Your task to perform on an android device: Look up the book "The Girl on the Train". Image 0: 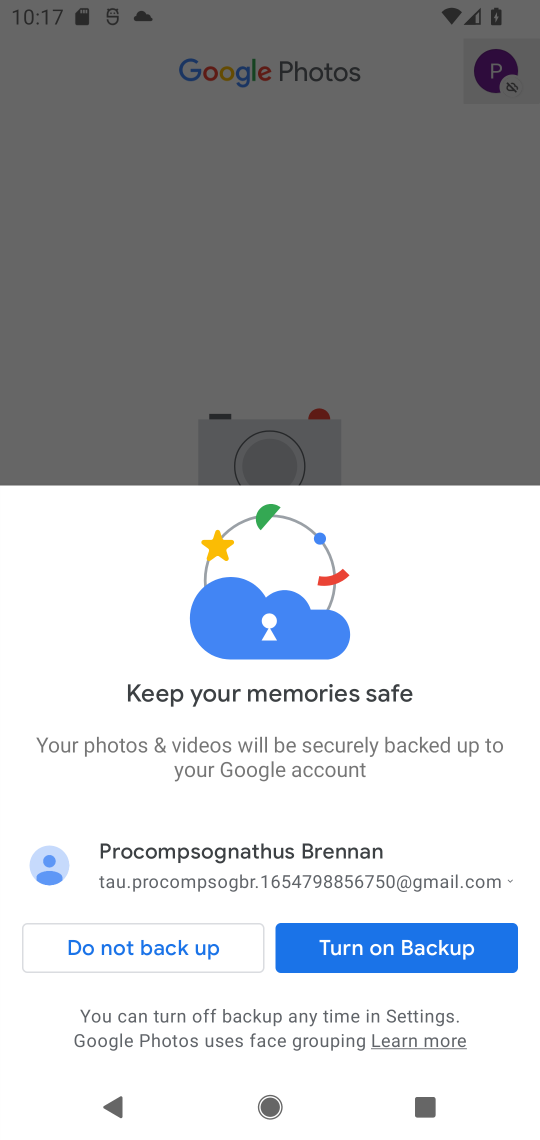
Step 0: press home button
Your task to perform on an android device: Look up the book "The Girl on the Train". Image 1: 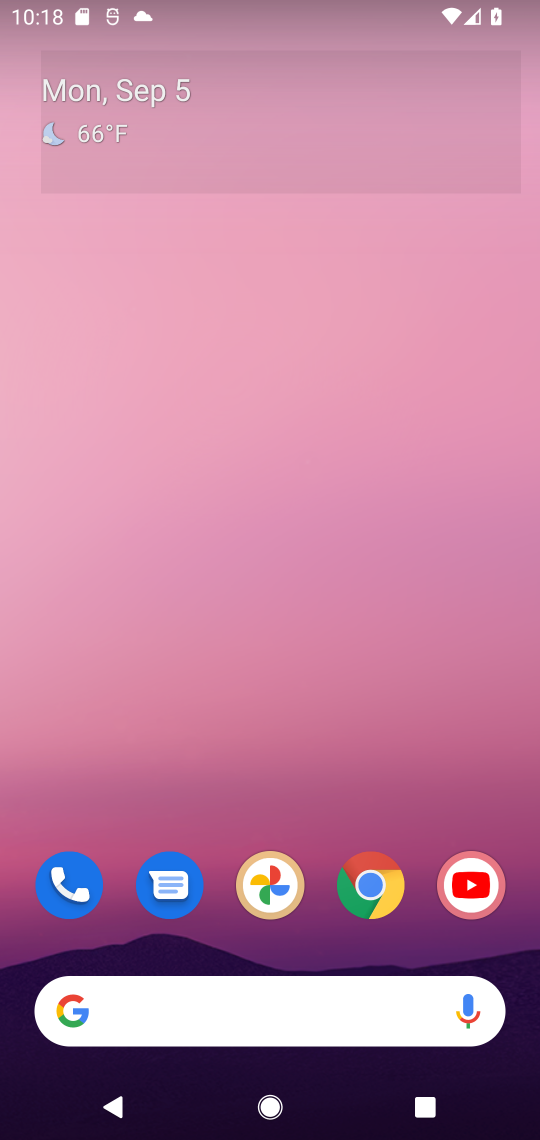
Step 1: click (371, 893)
Your task to perform on an android device: Look up the book "The Girl on the Train". Image 2: 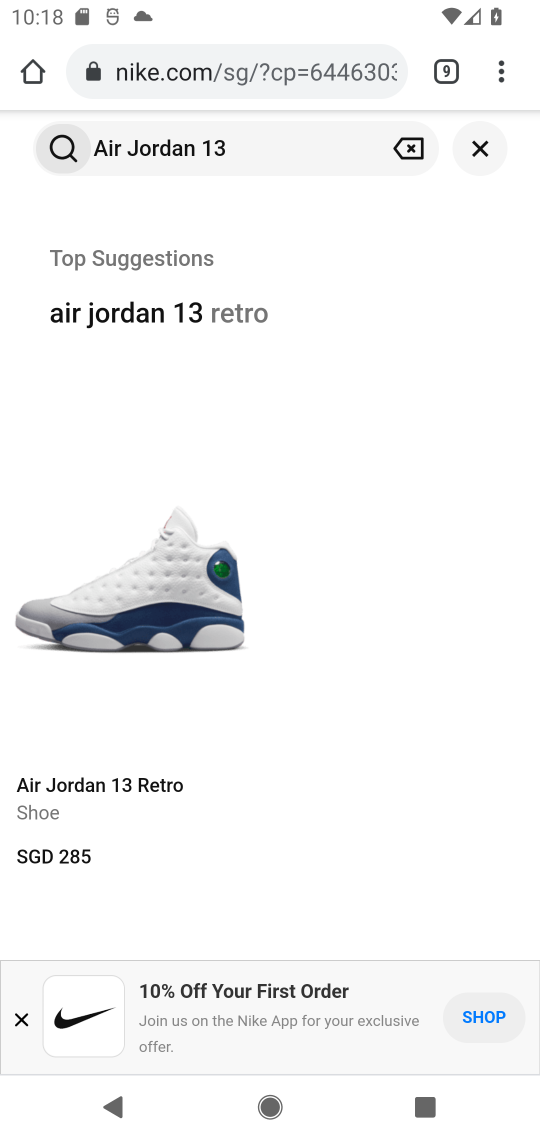
Step 2: drag from (501, 80) to (261, 252)
Your task to perform on an android device: Look up the book "The Girl on the Train". Image 3: 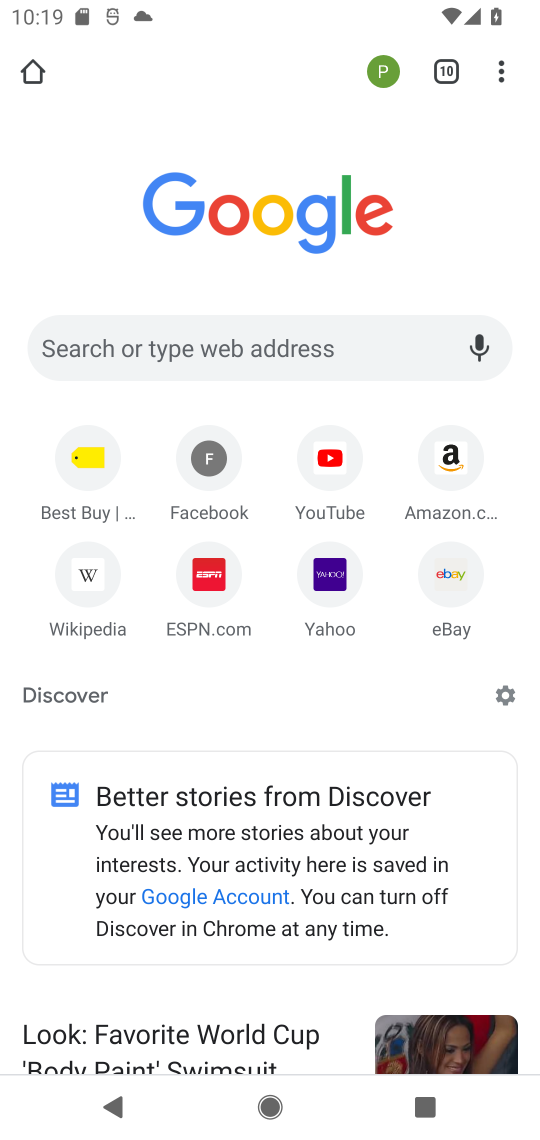
Step 3: click (260, 345)
Your task to perform on an android device: Look up the book "The Girl on the Train". Image 4: 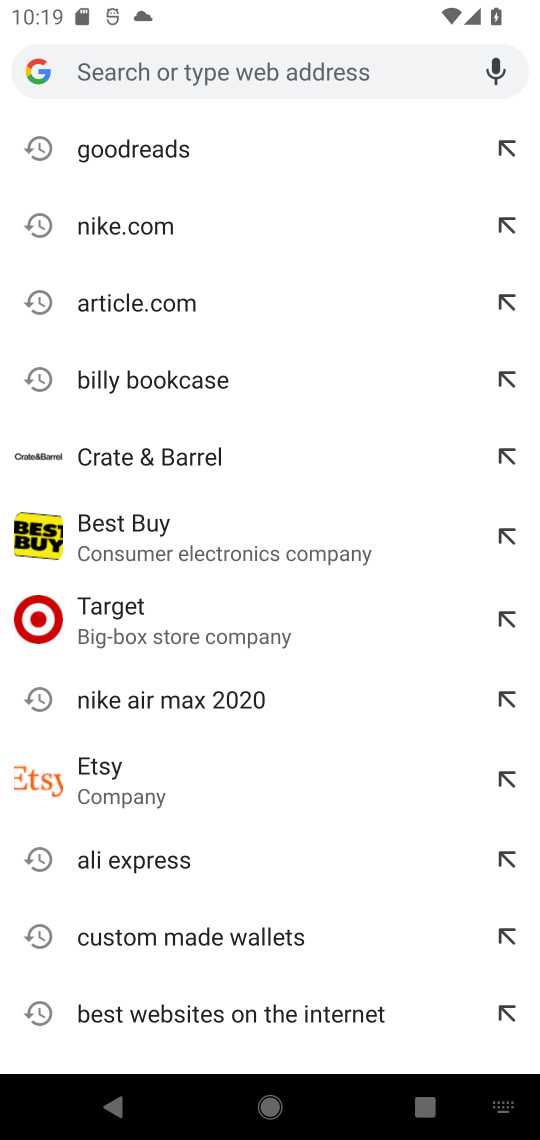
Step 4: type "The Girl on the Train"
Your task to perform on an android device: Look up the book "The Girl on the Train". Image 5: 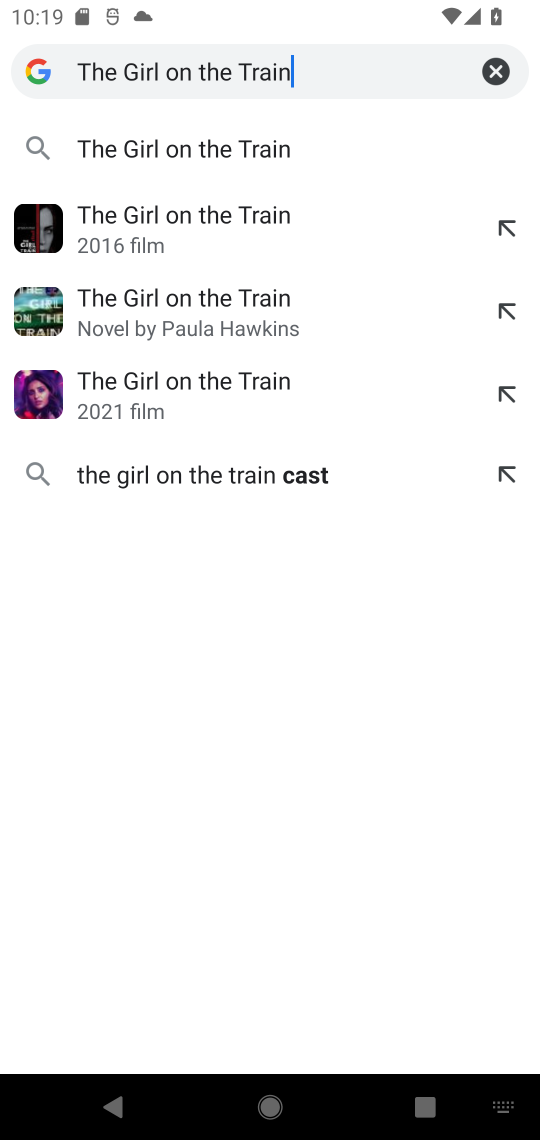
Step 5: click (196, 146)
Your task to perform on an android device: Look up the book "The Girl on the Train". Image 6: 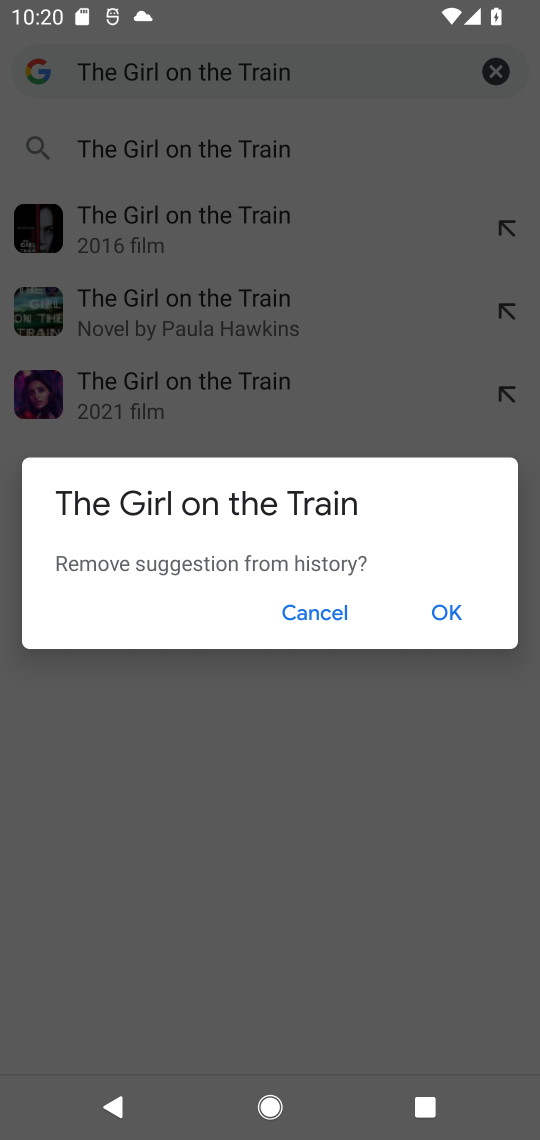
Step 6: click (327, 616)
Your task to perform on an android device: Look up the book "The Girl on the Train". Image 7: 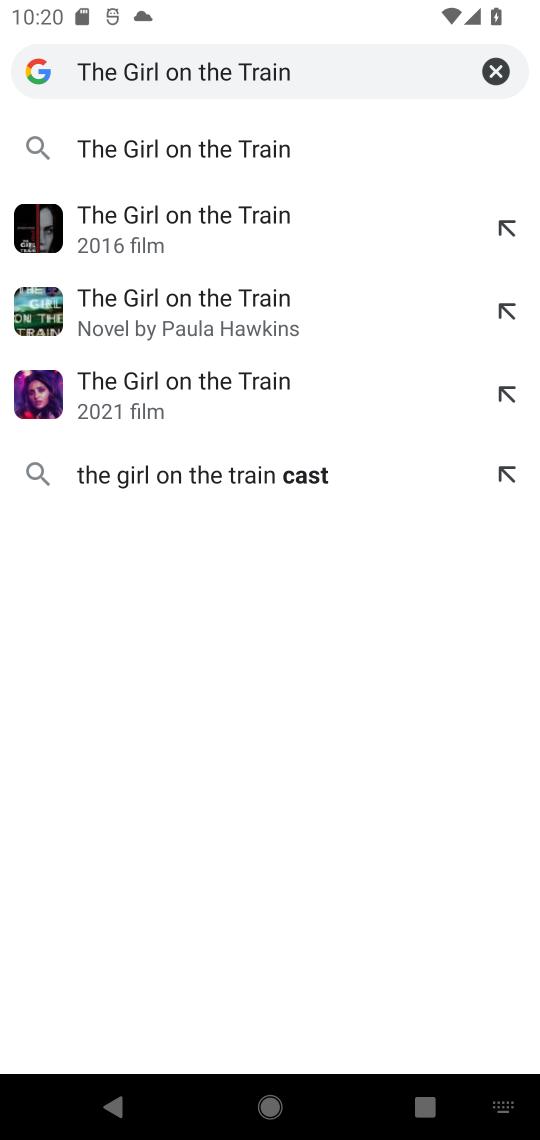
Step 7: click (219, 142)
Your task to perform on an android device: Look up the book "The Girl on the Train". Image 8: 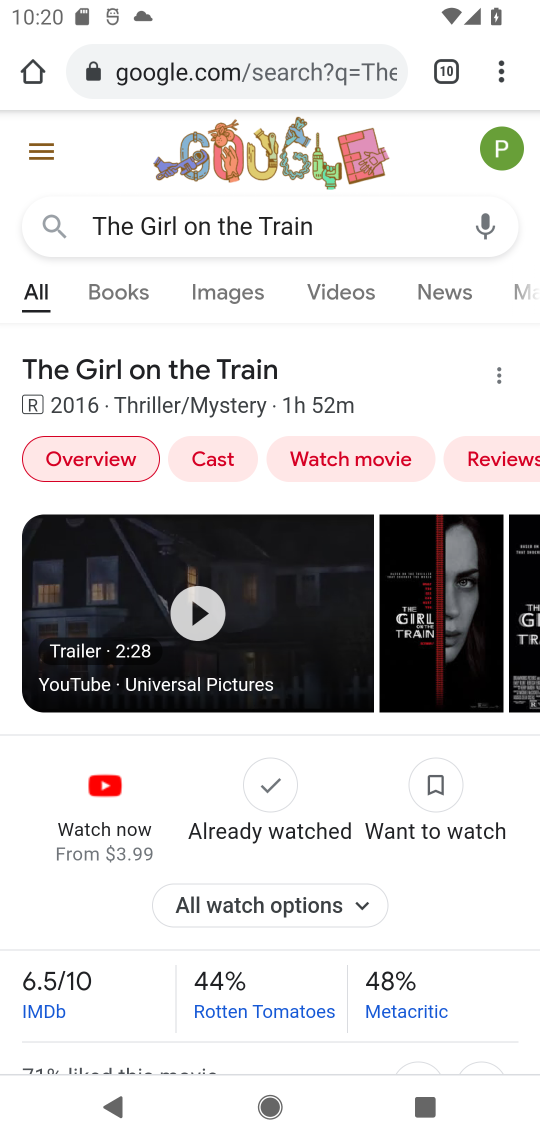
Step 8: task complete